Your task to perform on an android device: turn off picture-in-picture Image 0: 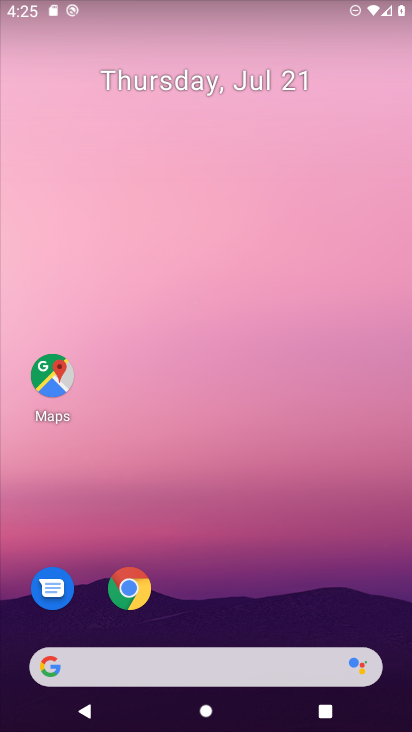
Step 0: drag from (186, 603) to (270, 35)
Your task to perform on an android device: turn off picture-in-picture Image 1: 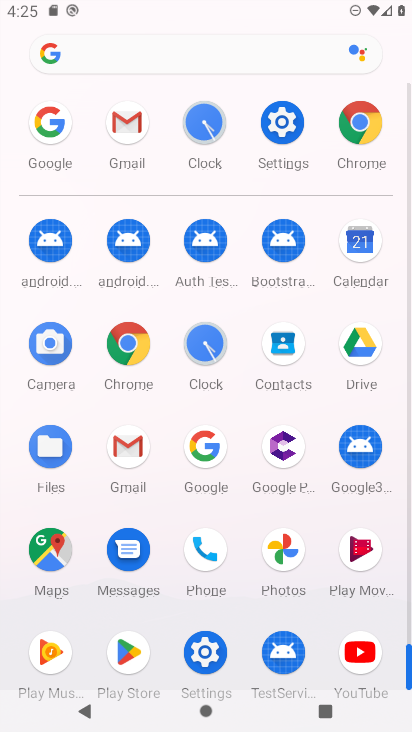
Step 1: click (283, 136)
Your task to perform on an android device: turn off picture-in-picture Image 2: 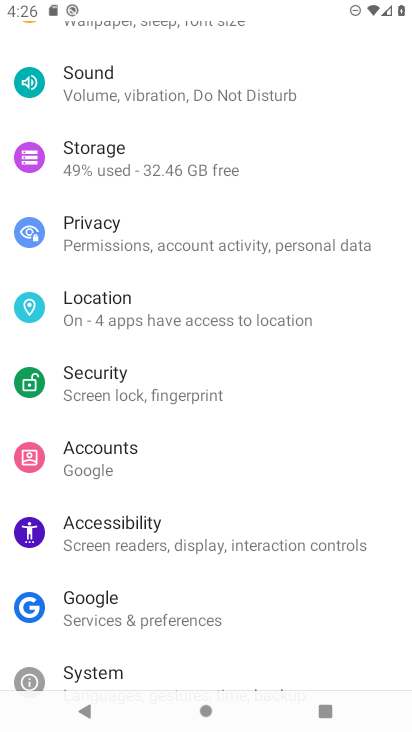
Step 2: drag from (191, 536) to (192, 663)
Your task to perform on an android device: turn off picture-in-picture Image 3: 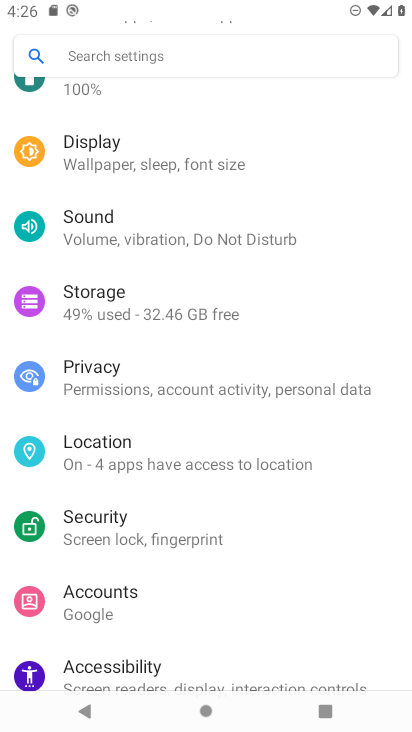
Step 3: drag from (189, 216) to (130, 632)
Your task to perform on an android device: turn off picture-in-picture Image 4: 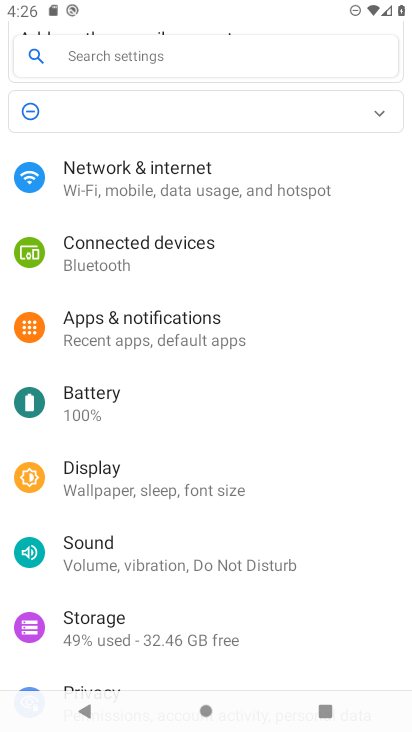
Step 4: click (171, 340)
Your task to perform on an android device: turn off picture-in-picture Image 5: 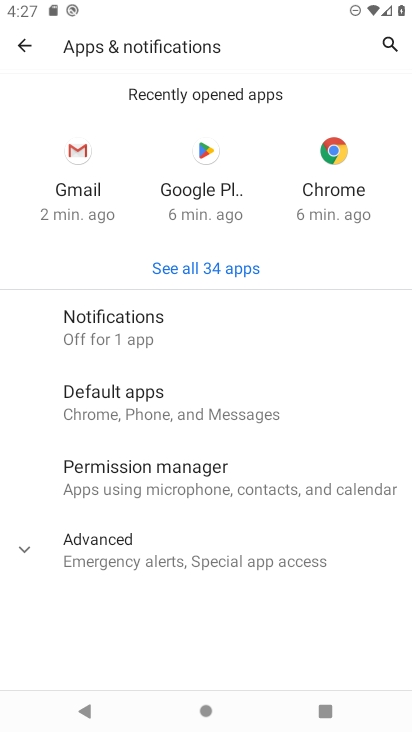
Step 5: click (199, 543)
Your task to perform on an android device: turn off picture-in-picture Image 6: 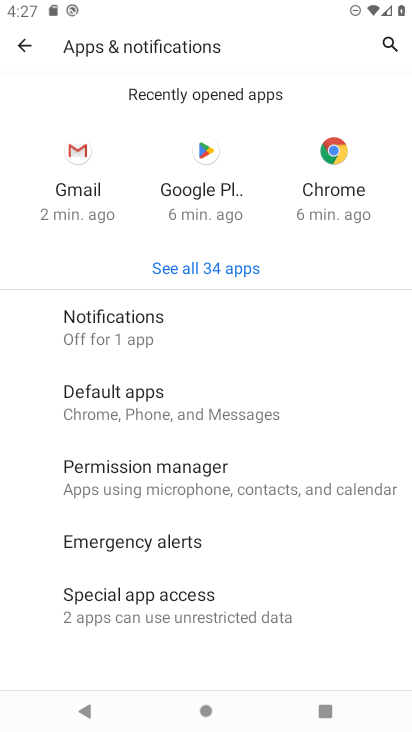
Step 6: drag from (211, 575) to (231, 260)
Your task to perform on an android device: turn off picture-in-picture Image 7: 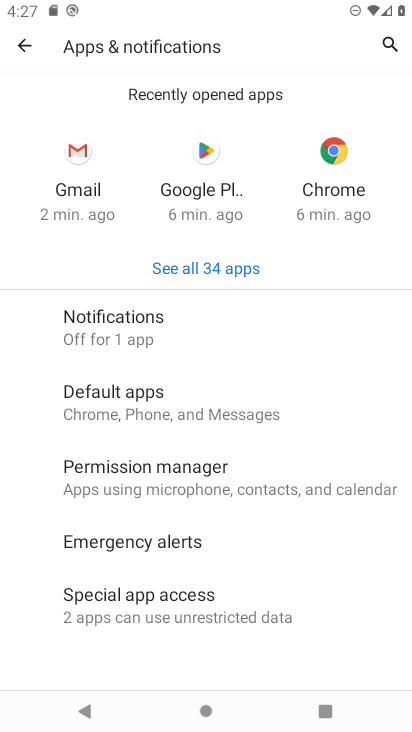
Step 7: click (214, 600)
Your task to perform on an android device: turn off picture-in-picture Image 8: 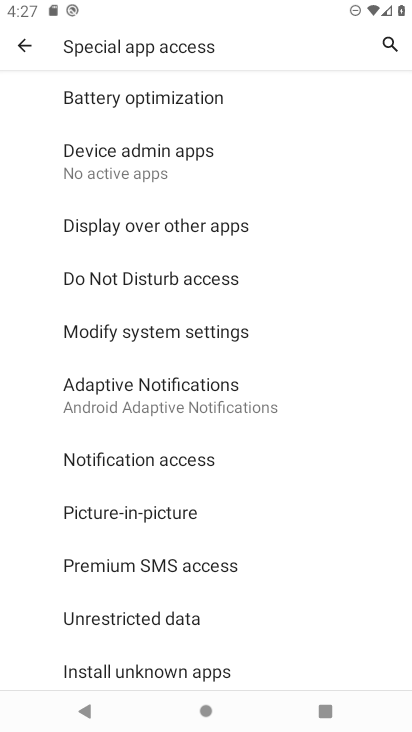
Step 8: drag from (167, 559) to (157, 444)
Your task to perform on an android device: turn off picture-in-picture Image 9: 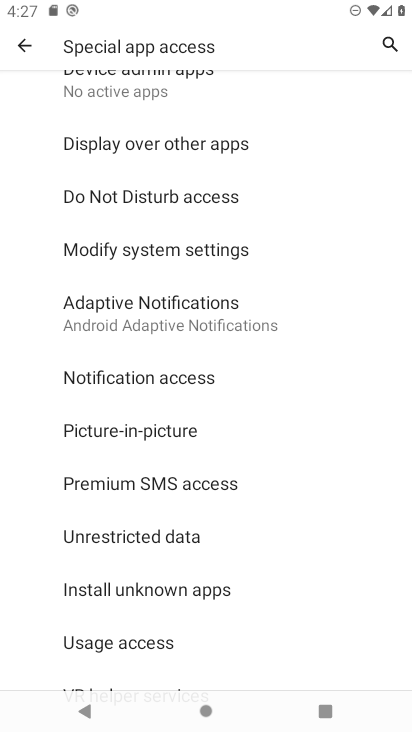
Step 9: click (147, 446)
Your task to perform on an android device: turn off picture-in-picture Image 10: 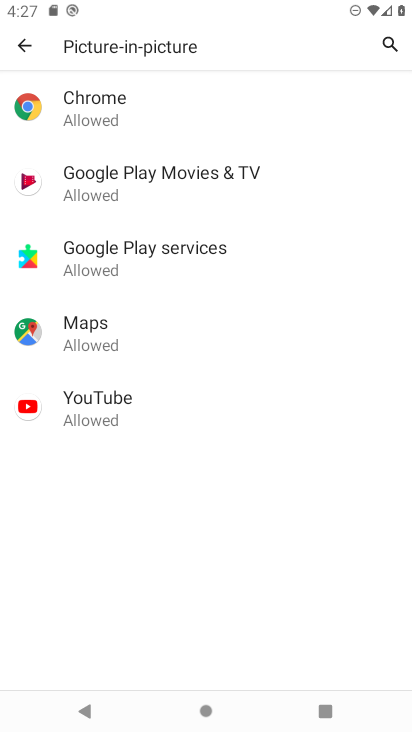
Step 10: click (183, 106)
Your task to perform on an android device: turn off picture-in-picture Image 11: 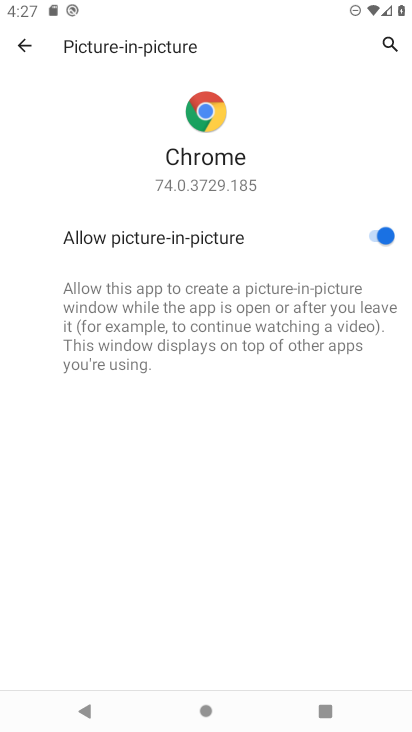
Step 11: click (368, 234)
Your task to perform on an android device: turn off picture-in-picture Image 12: 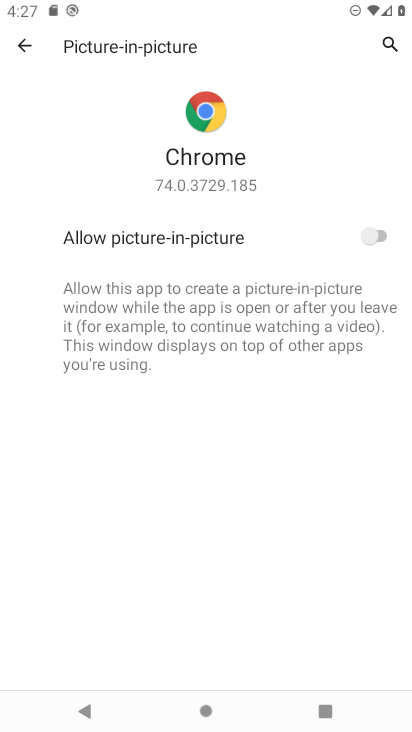
Step 12: task complete